Your task to perform on an android device: turn on airplane mode Image 0: 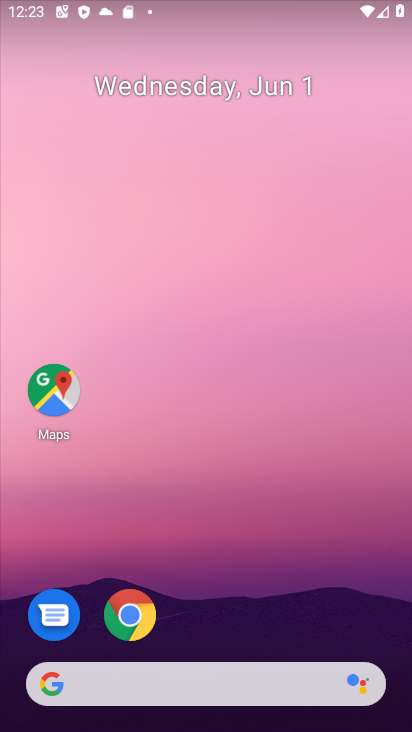
Step 0: drag from (299, 605) to (236, 1)
Your task to perform on an android device: turn on airplane mode Image 1: 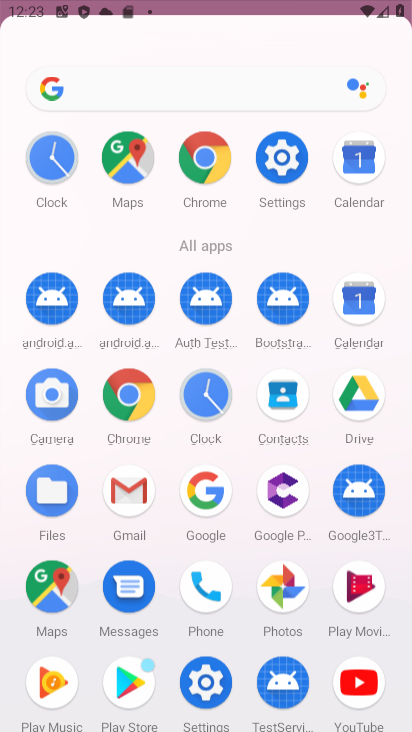
Step 1: task complete